Your task to perform on an android device: move a message to another label in the gmail app Image 0: 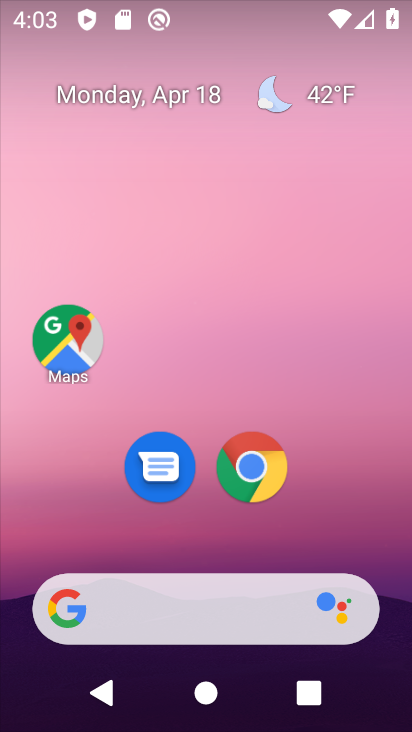
Step 0: drag from (187, 536) to (176, 176)
Your task to perform on an android device: move a message to another label in the gmail app Image 1: 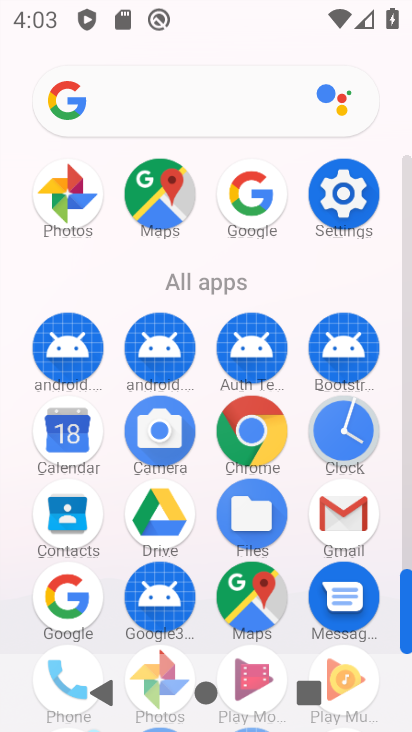
Step 1: click (333, 528)
Your task to perform on an android device: move a message to another label in the gmail app Image 2: 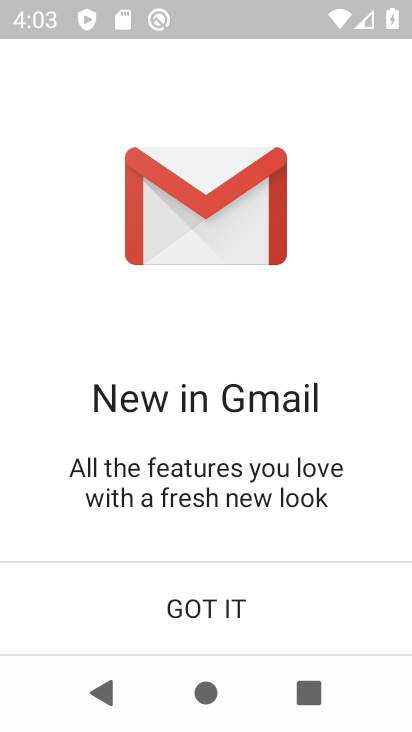
Step 2: click (206, 614)
Your task to perform on an android device: move a message to another label in the gmail app Image 3: 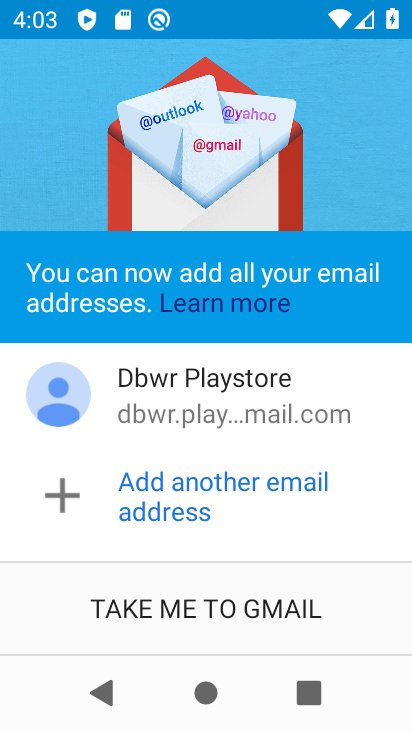
Step 3: click (211, 623)
Your task to perform on an android device: move a message to another label in the gmail app Image 4: 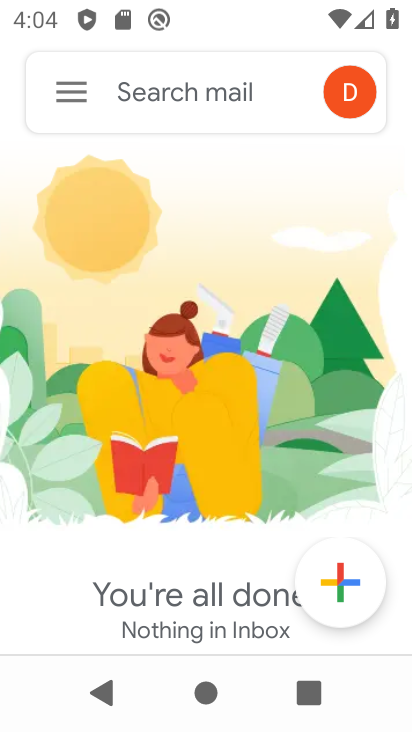
Step 4: click (57, 81)
Your task to perform on an android device: move a message to another label in the gmail app Image 5: 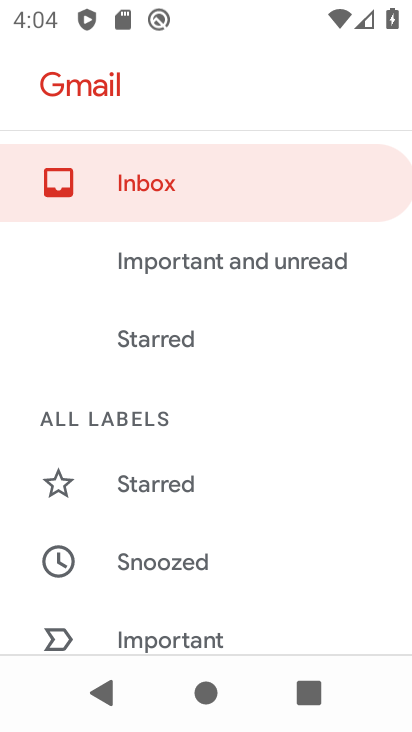
Step 5: drag from (262, 530) to (210, 451)
Your task to perform on an android device: move a message to another label in the gmail app Image 6: 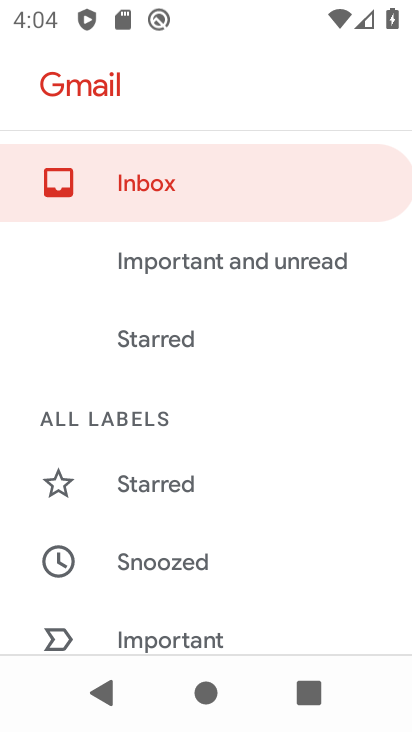
Step 6: drag from (76, 363) to (95, 161)
Your task to perform on an android device: move a message to another label in the gmail app Image 7: 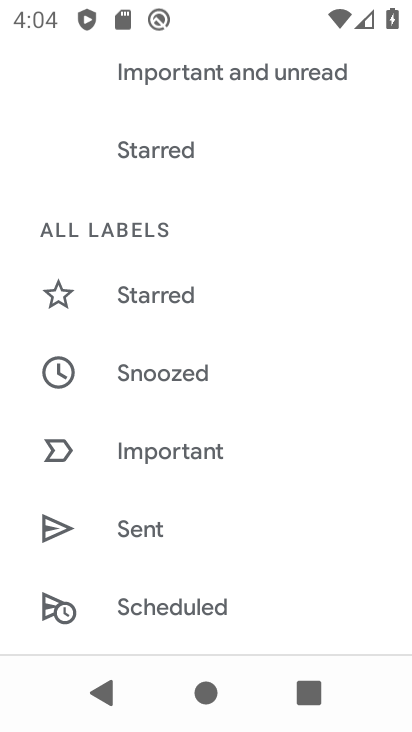
Step 7: drag from (207, 598) to (238, 247)
Your task to perform on an android device: move a message to another label in the gmail app Image 8: 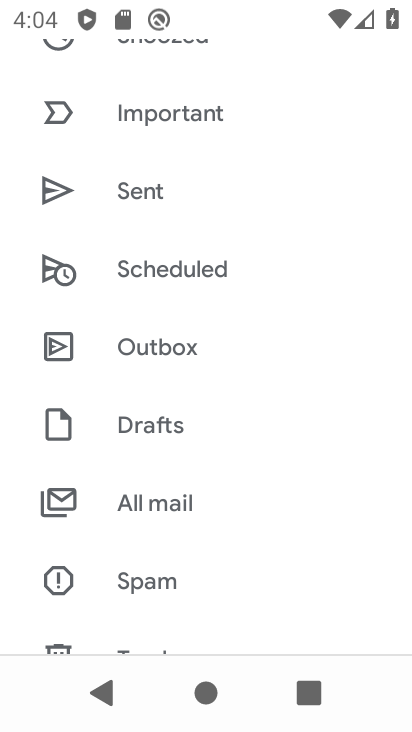
Step 8: click (184, 516)
Your task to perform on an android device: move a message to another label in the gmail app Image 9: 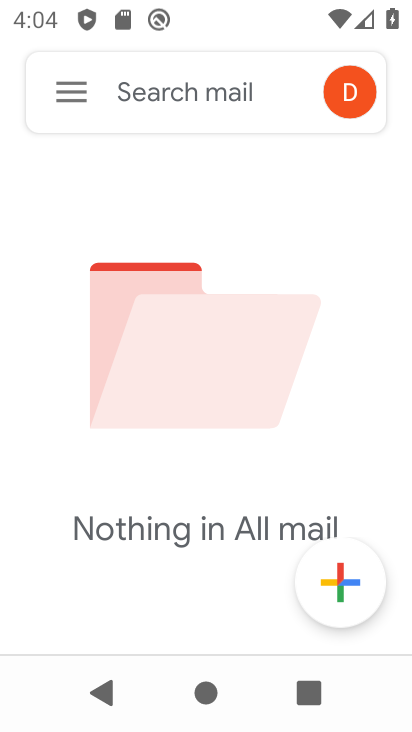
Step 9: task complete